Your task to perform on an android device: What is the recent news? Image 0: 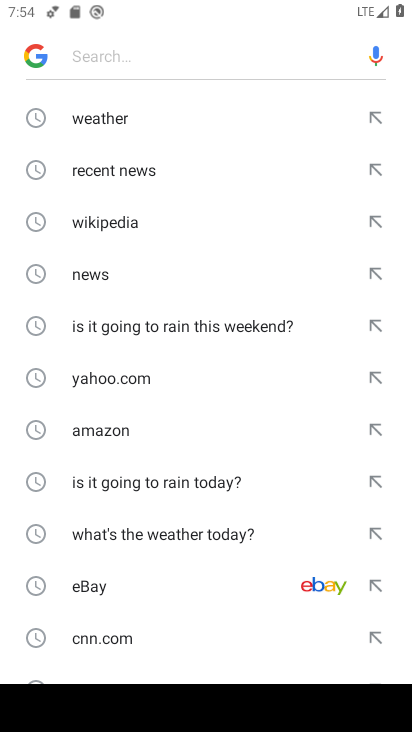
Step 0: press home button
Your task to perform on an android device: What is the recent news? Image 1: 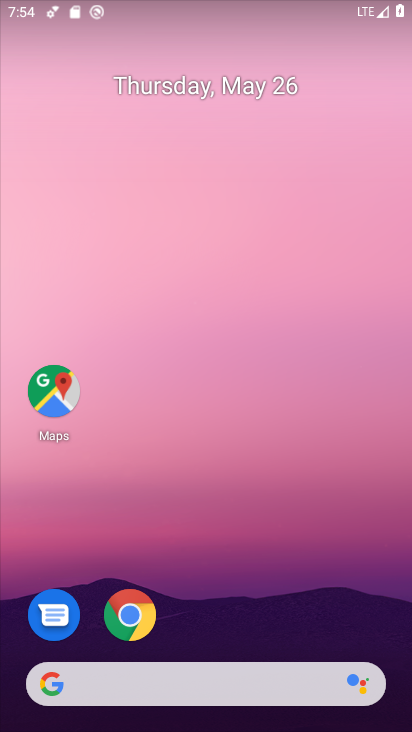
Step 1: click (130, 602)
Your task to perform on an android device: What is the recent news? Image 2: 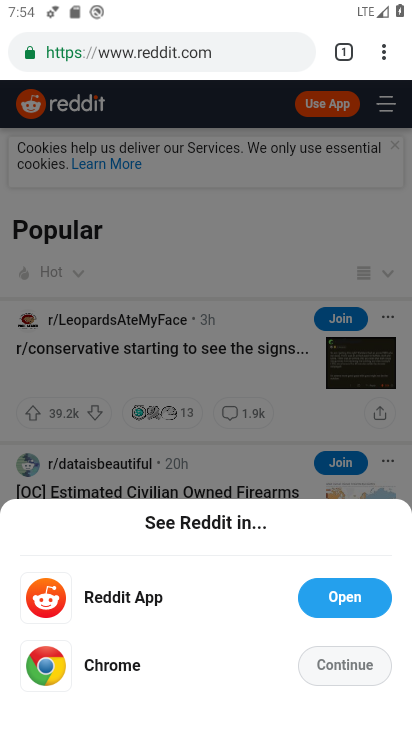
Step 2: click (393, 47)
Your task to perform on an android device: What is the recent news? Image 3: 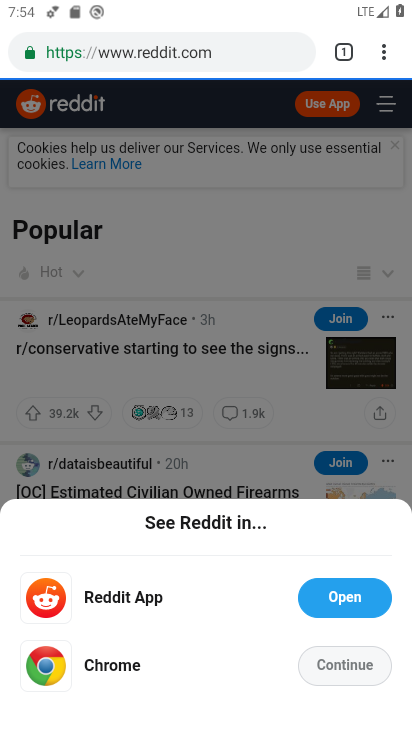
Step 3: click (376, 42)
Your task to perform on an android device: What is the recent news? Image 4: 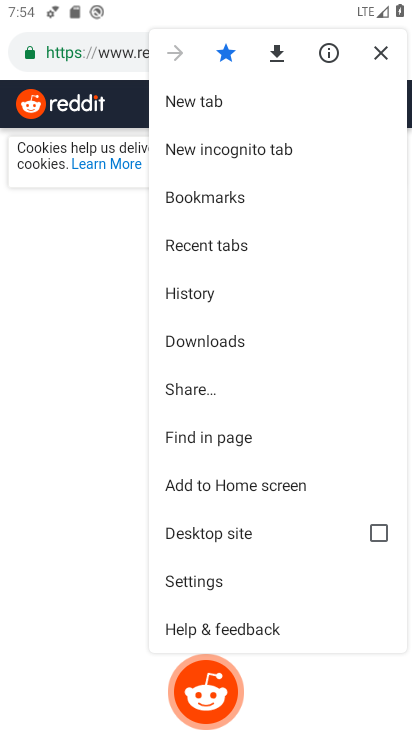
Step 4: click (200, 105)
Your task to perform on an android device: What is the recent news? Image 5: 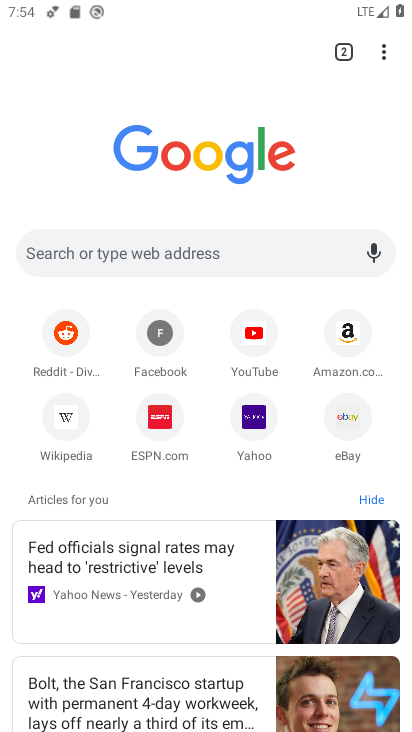
Step 5: click (241, 234)
Your task to perform on an android device: What is the recent news? Image 6: 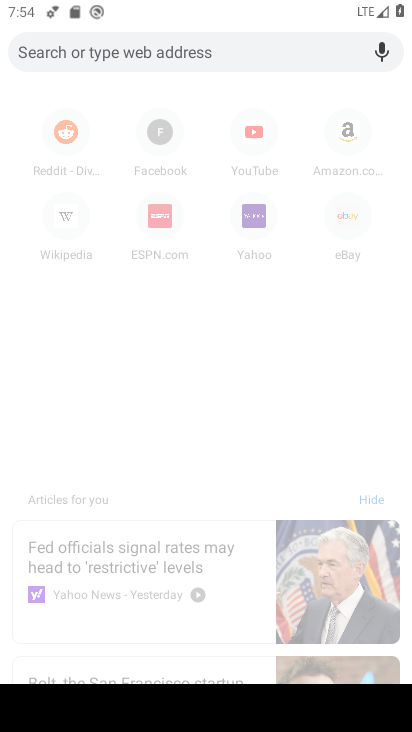
Step 6: type "What is the recent news?"
Your task to perform on an android device: What is the recent news? Image 7: 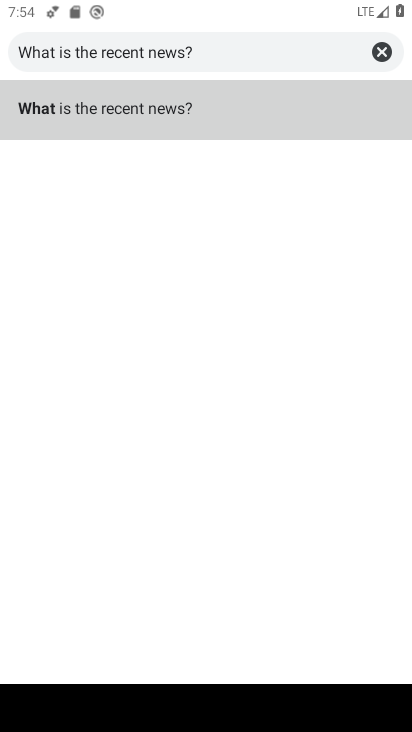
Step 7: click (244, 98)
Your task to perform on an android device: What is the recent news? Image 8: 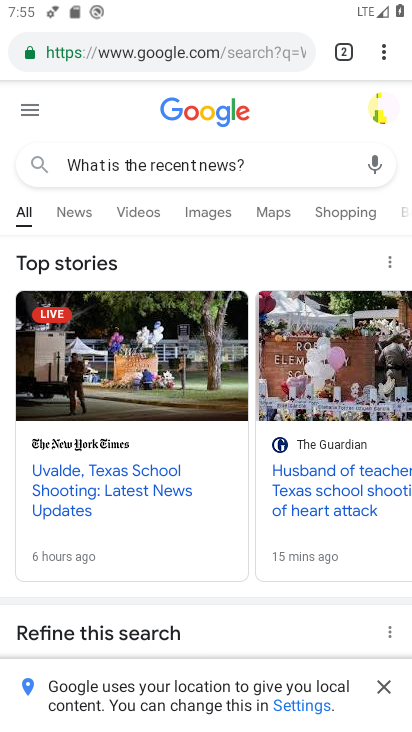
Step 8: task complete